Your task to perform on an android device: turn on data saver in the chrome app Image 0: 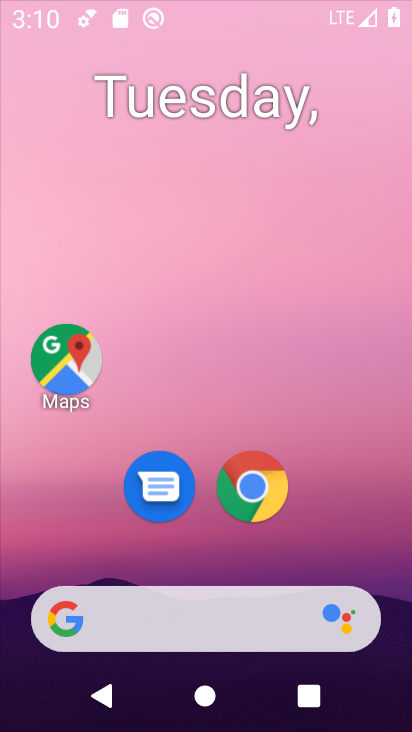
Step 0: press home button
Your task to perform on an android device: turn on data saver in the chrome app Image 1: 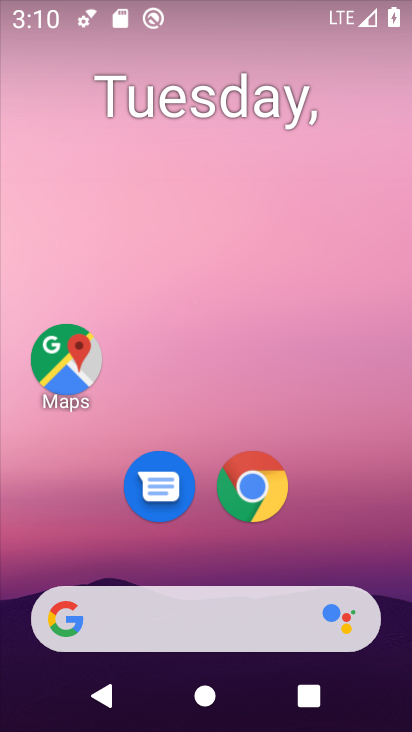
Step 1: click (250, 492)
Your task to perform on an android device: turn on data saver in the chrome app Image 2: 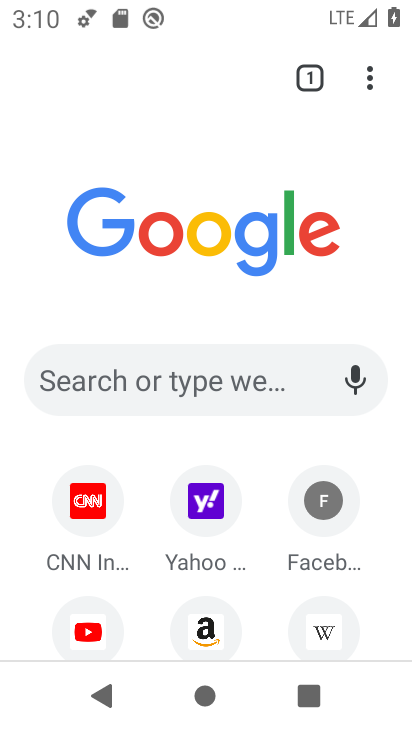
Step 2: click (373, 72)
Your task to perform on an android device: turn on data saver in the chrome app Image 3: 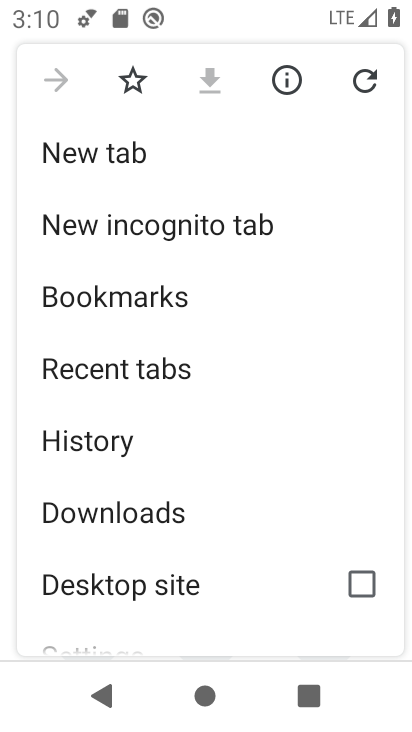
Step 3: drag from (202, 560) to (193, 186)
Your task to perform on an android device: turn on data saver in the chrome app Image 4: 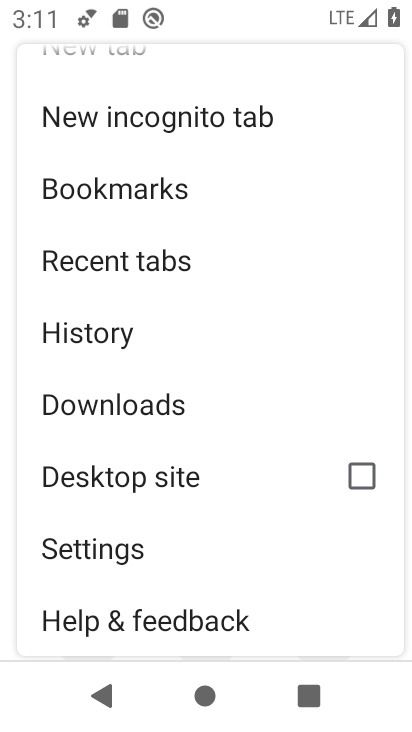
Step 4: click (159, 544)
Your task to perform on an android device: turn on data saver in the chrome app Image 5: 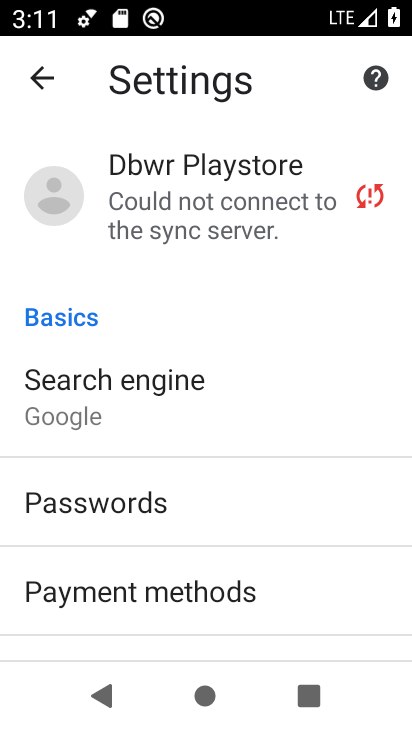
Step 5: drag from (221, 472) to (245, 100)
Your task to perform on an android device: turn on data saver in the chrome app Image 6: 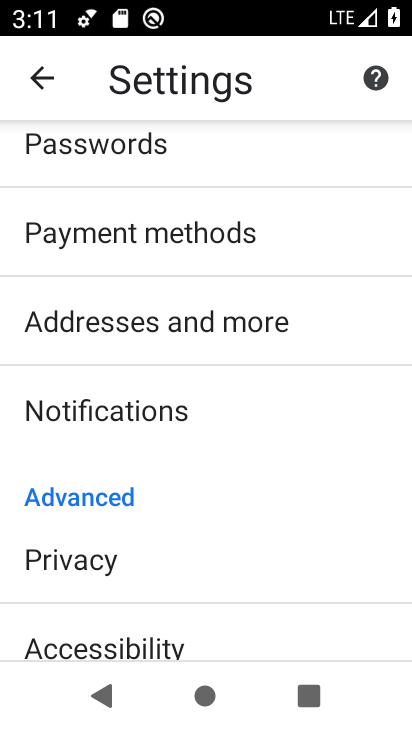
Step 6: drag from (188, 601) to (206, 203)
Your task to perform on an android device: turn on data saver in the chrome app Image 7: 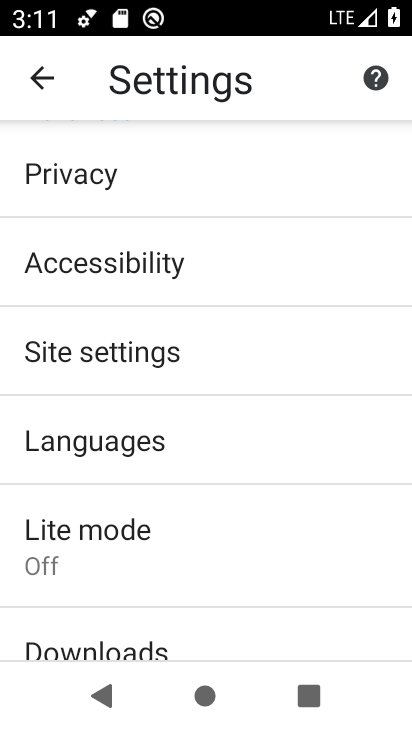
Step 7: click (123, 553)
Your task to perform on an android device: turn on data saver in the chrome app Image 8: 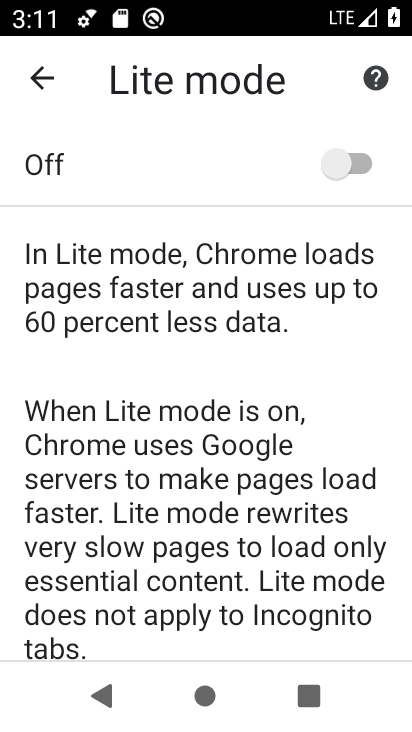
Step 8: click (366, 158)
Your task to perform on an android device: turn on data saver in the chrome app Image 9: 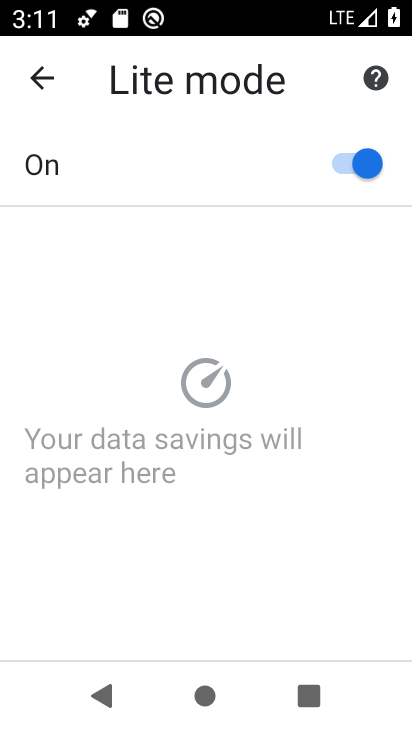
Step 9: task complete